Your task to perform on an android device: Open notification settings Image 0: 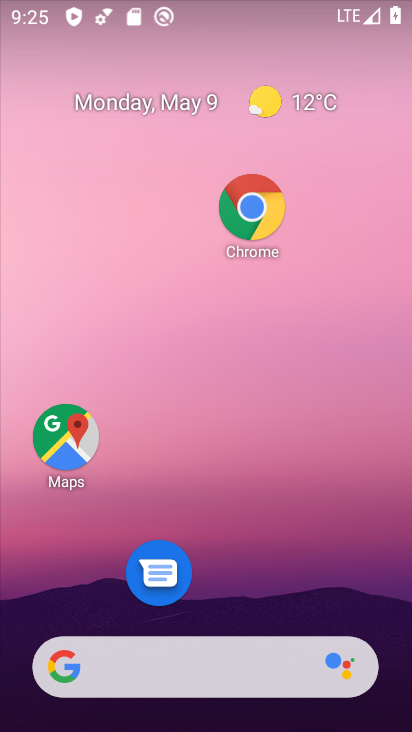
Step 0: drag from (242, 588) to (307, 115)
Your task to perform on an android device: Open notification settings Image 1: 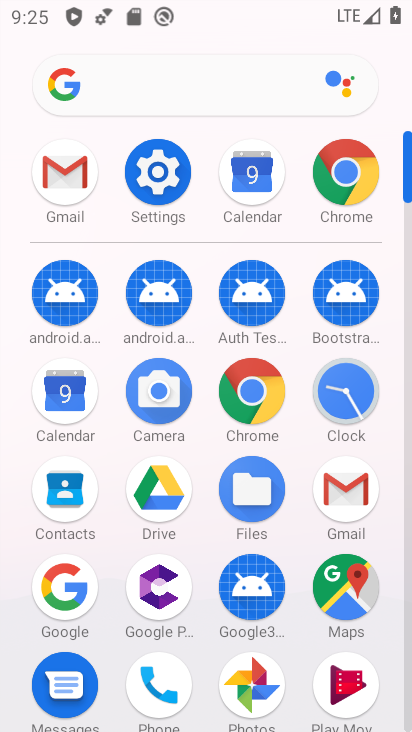
Step 1: click (186, 207)
Your task to perform on an android device: Open notification settings Image 2: 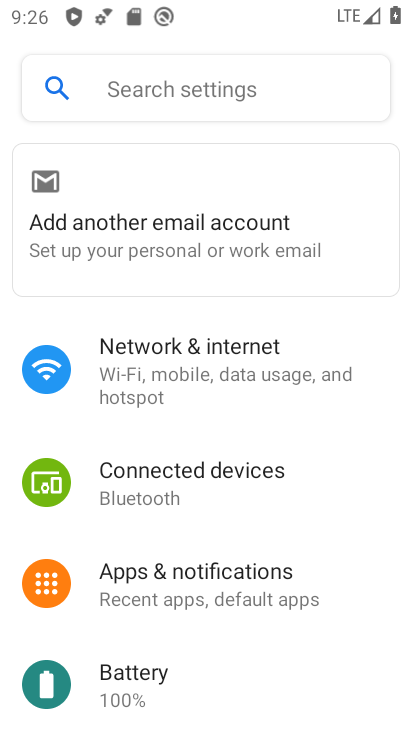
Step 2: click (228, 580)
Your task to perform on an android device: Open notification settings Image 3: 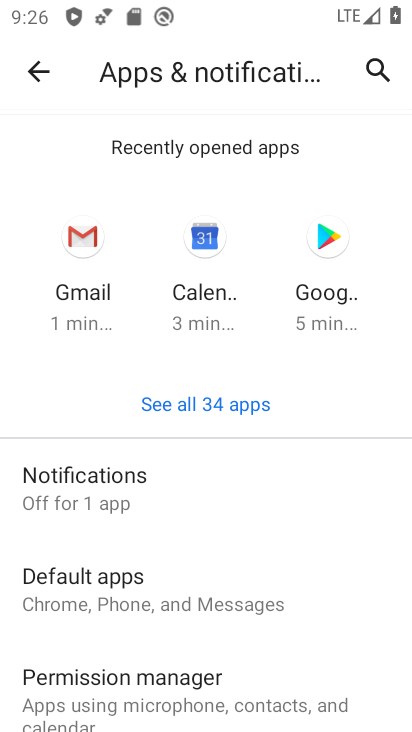
Step 3: click (250, 470)
Your task to perform on an android device: Open notification settings Image 4: 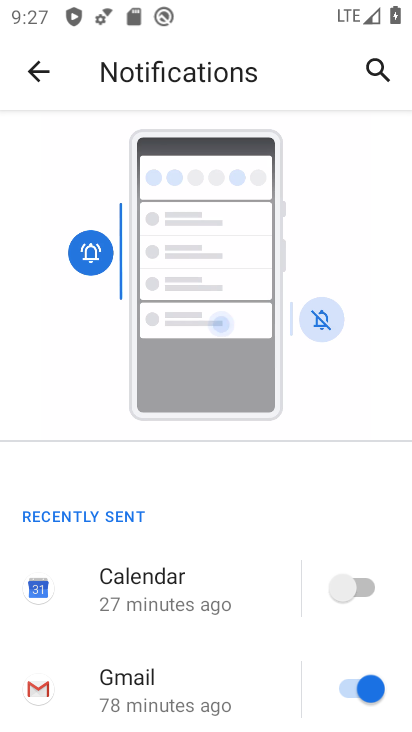
Step 4: task complete